Your task to perform on an android device: change keyboard looks Image 0: 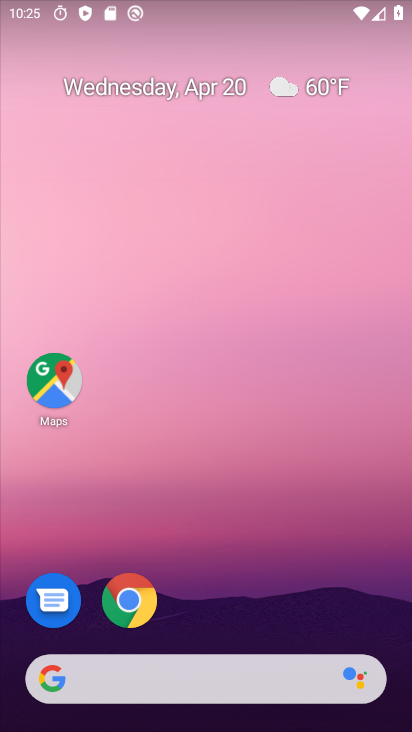
Step 0: drag from (212, 626) to (377, 163)
Your task to perform on an android device: change keyboard looks Image 1: 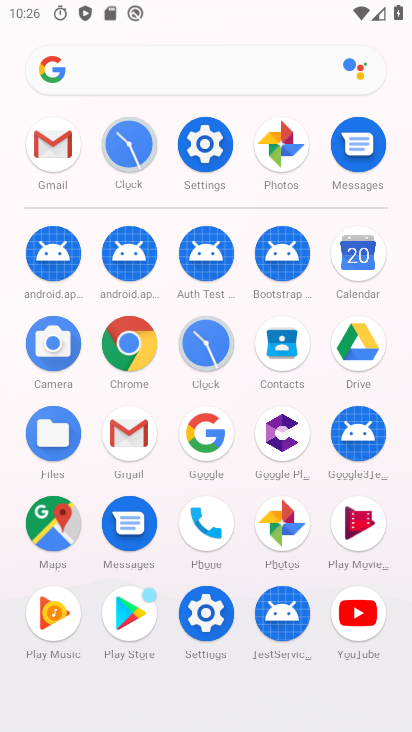
Step 1: click (213, 137)
Your task to perform on an android device: change keyboard looks Image 2: 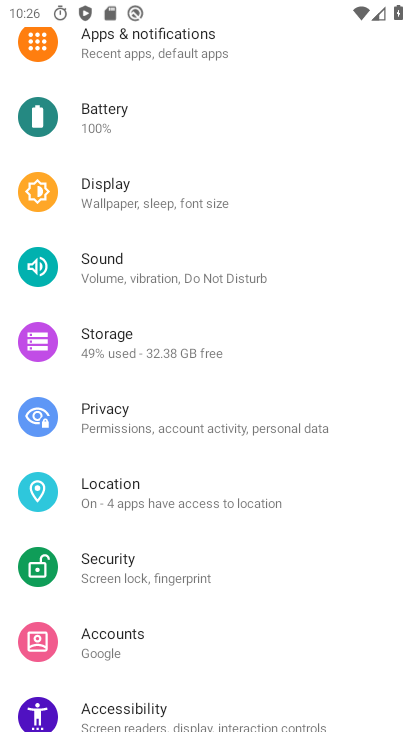
Step 2: drag from (156, 591) to (148, 74)
Your task to perform on an android device: change keyboard looks Image 3: 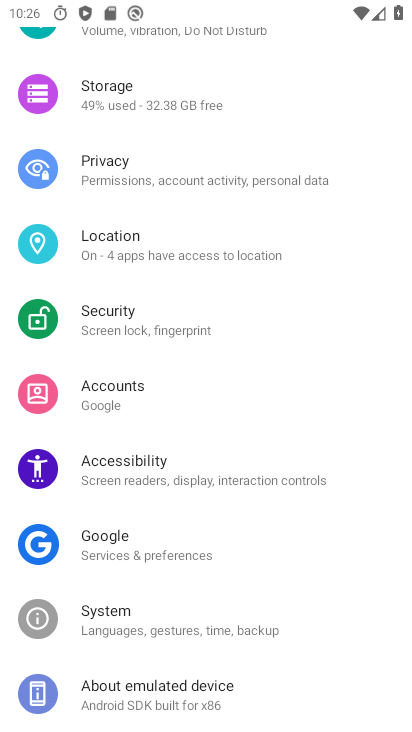
Step 3: click (155, 621)
Your task to perform on an android device: change keyboard looks Image 4: 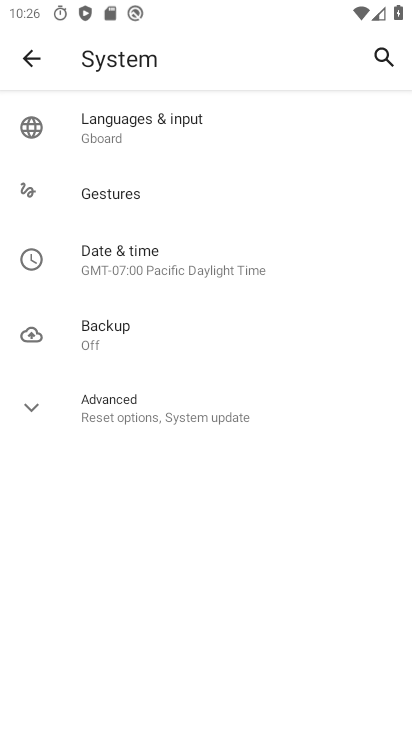
Step 4: click (165, 132)
Your task to perform on an android device: change keyboard looks Image 5: 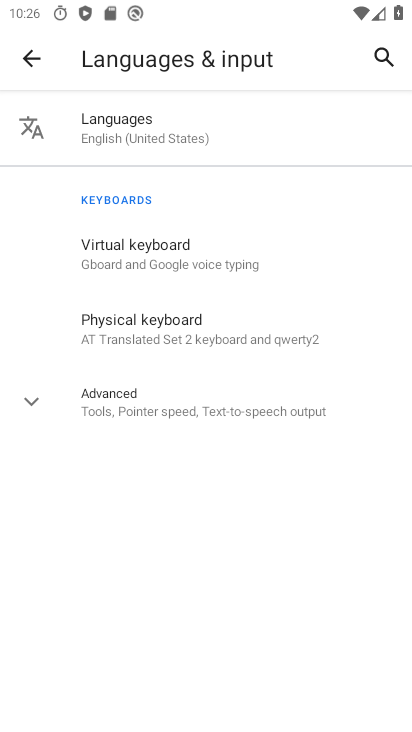
Step 5: click (192, 247)
Your task to perform on an android device: change keyboard looks Image 6: 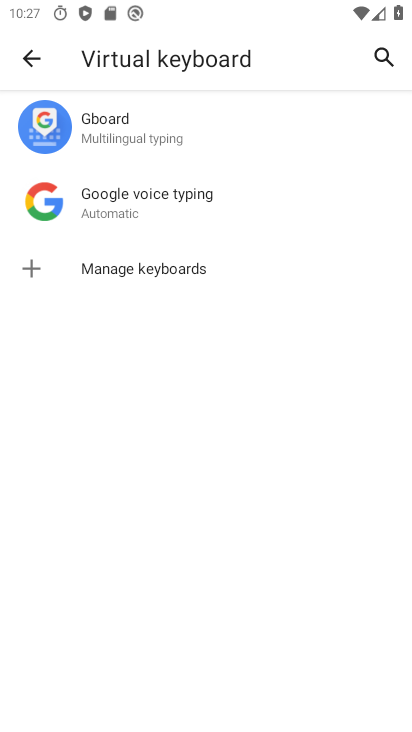
Step 6: click (182, 114)
Your task to perform on an android device: change keyboard looks Image 7: 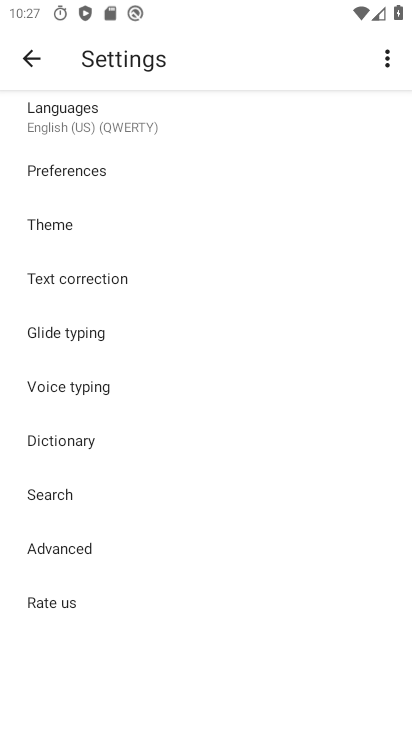
Step 7: click (115, 237)
Your task to perform on an android device: change keyboard looks Image 8: 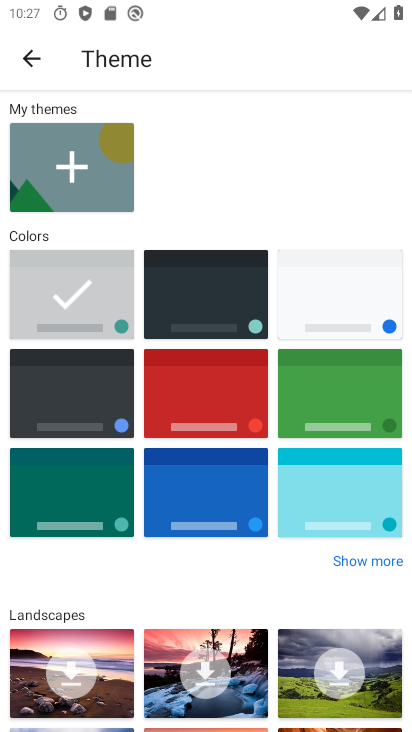
Step 8: click (178, 406)
Your task to perform on an android device: change keyboard looks Image 9: 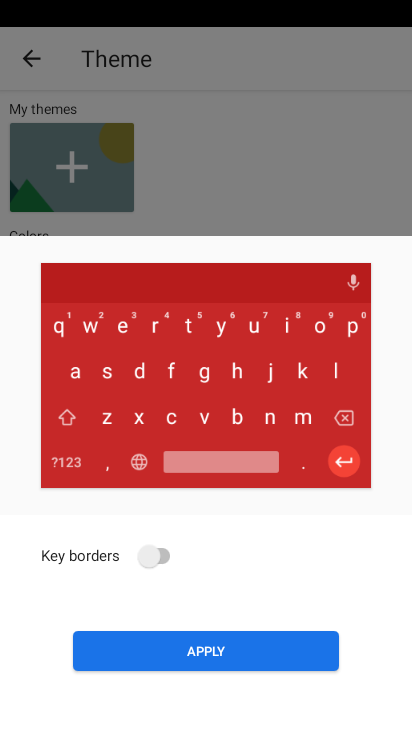
Step 9: click (210, 639)
Your task to perform on an android device: change keyboard looks Image 10: 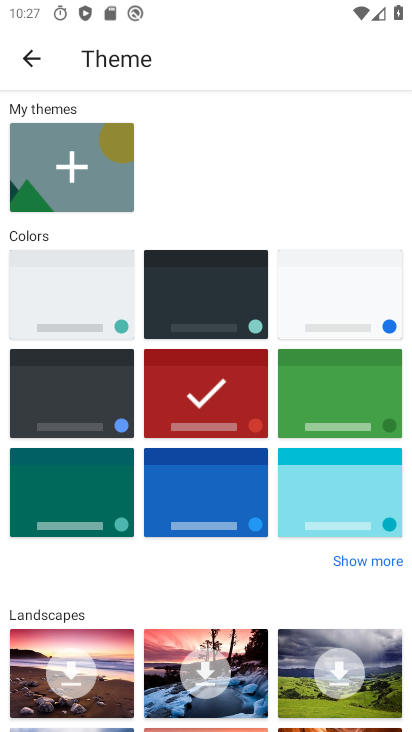
Step 10: task complete